Your task to perform on an android device: turn notification dots on Image 0: 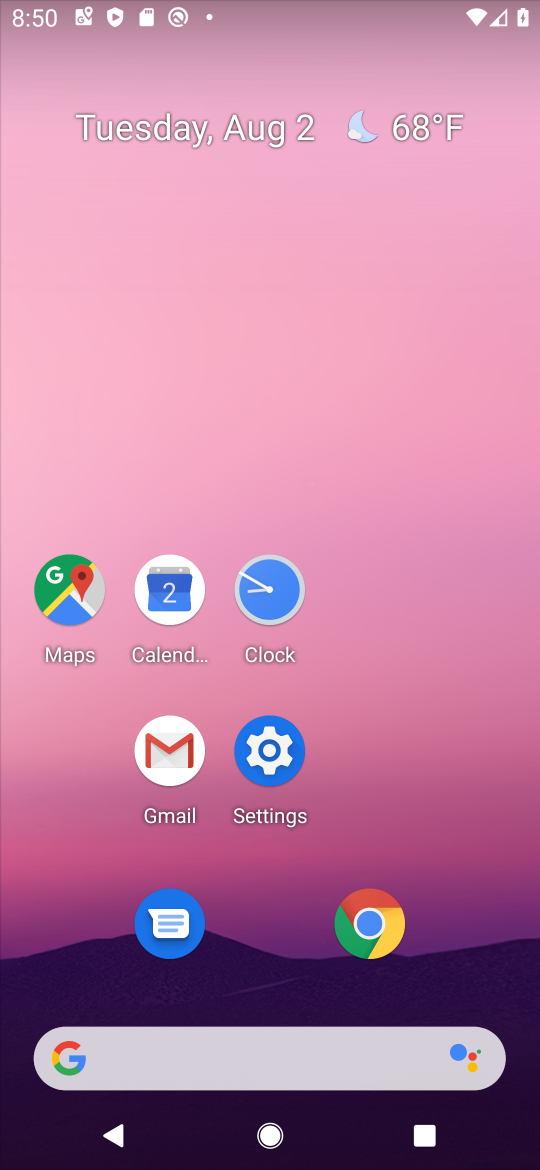
Step 0: click (267, 740)
Your task to perform on an android device: turn notification dots on Image 1: 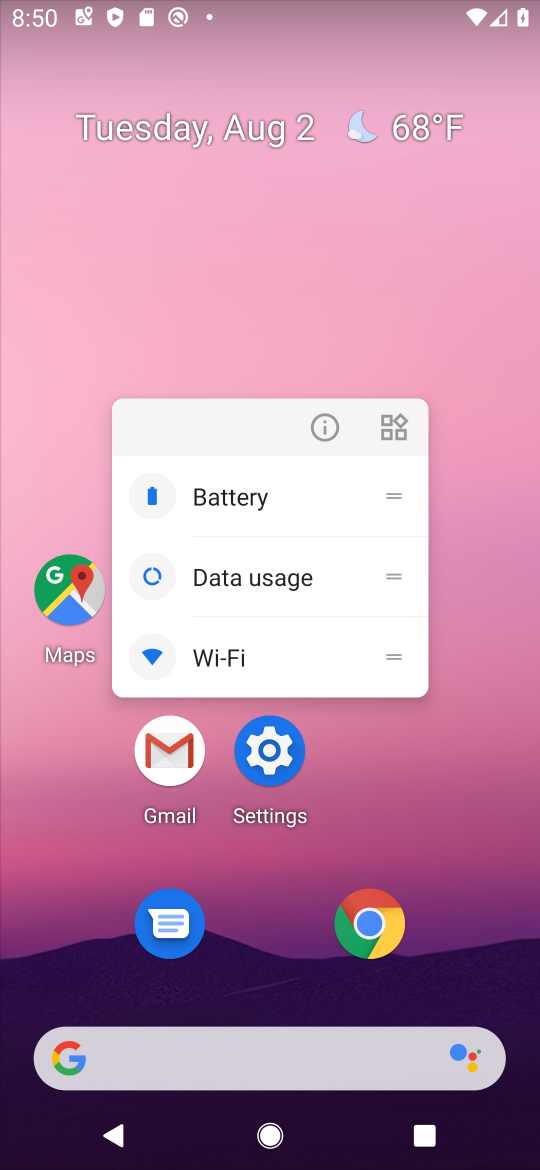
Step 1: click (266, 739)
Your task to perform on an android device: turn notification dots on Image 2: 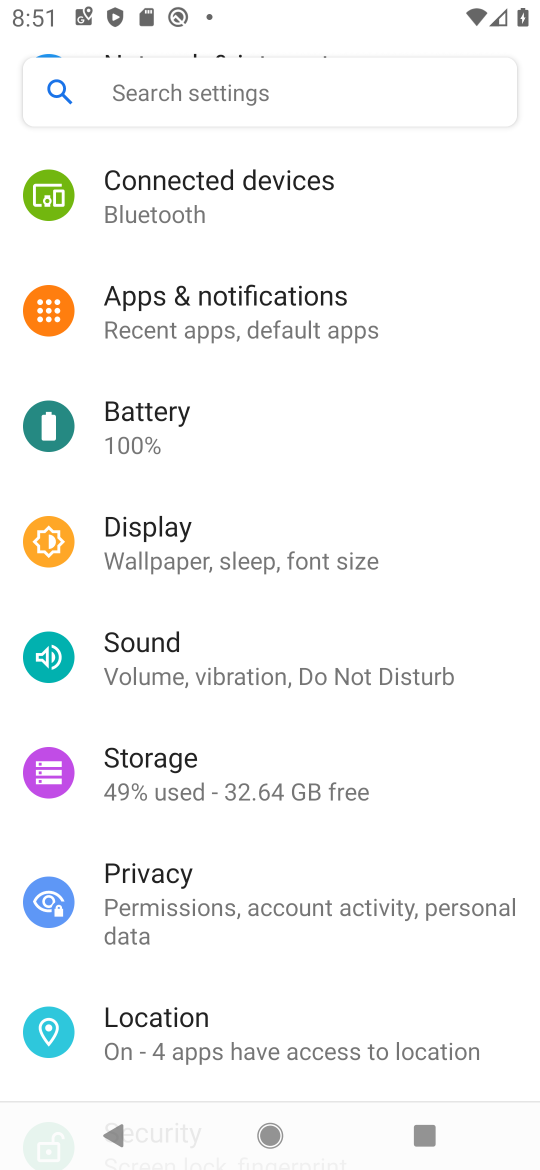
Step 2: click (264, 302)
Your task to perform on an android device: turn notification dots on Image 3: 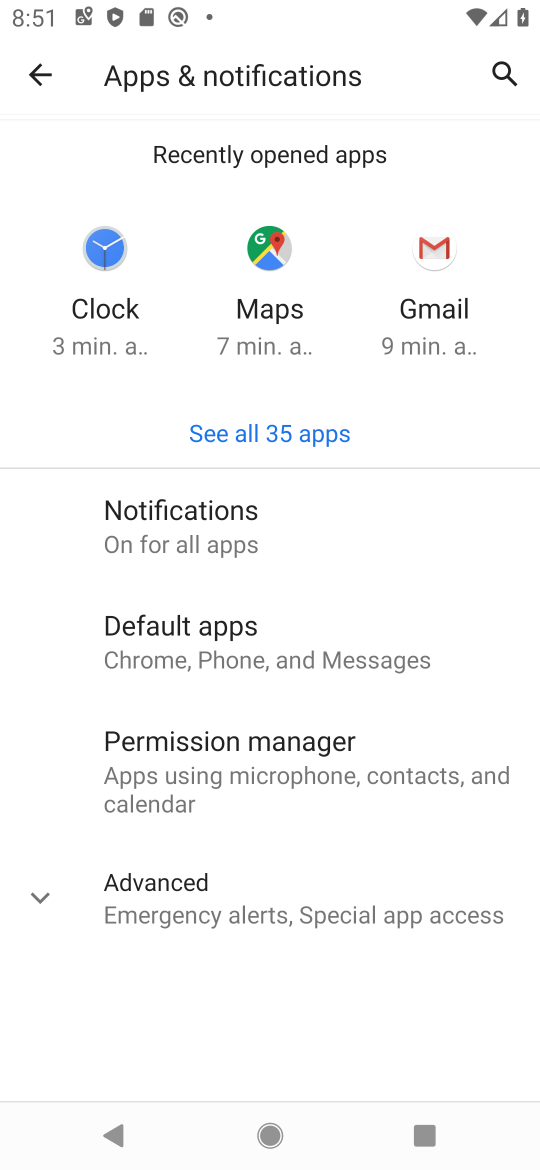
Step 3: click (203, 519)
Your task to perform on an android device: turn notification dots on Image 4: 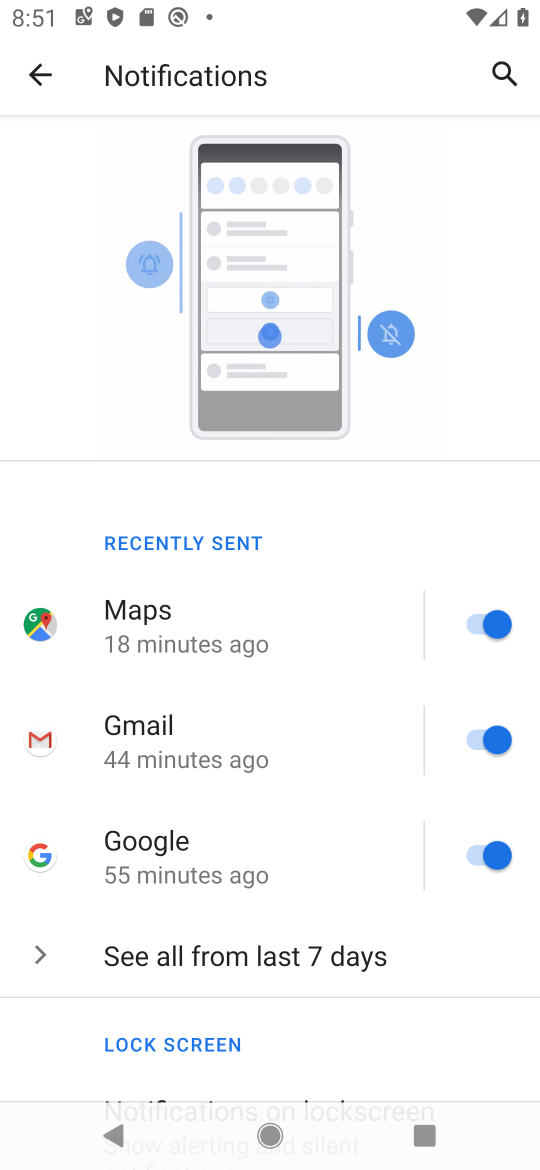
Step 4: drag from (419, 991) to (428, 569)
Your task to perform on an android device: turn notification dots on Image 5: 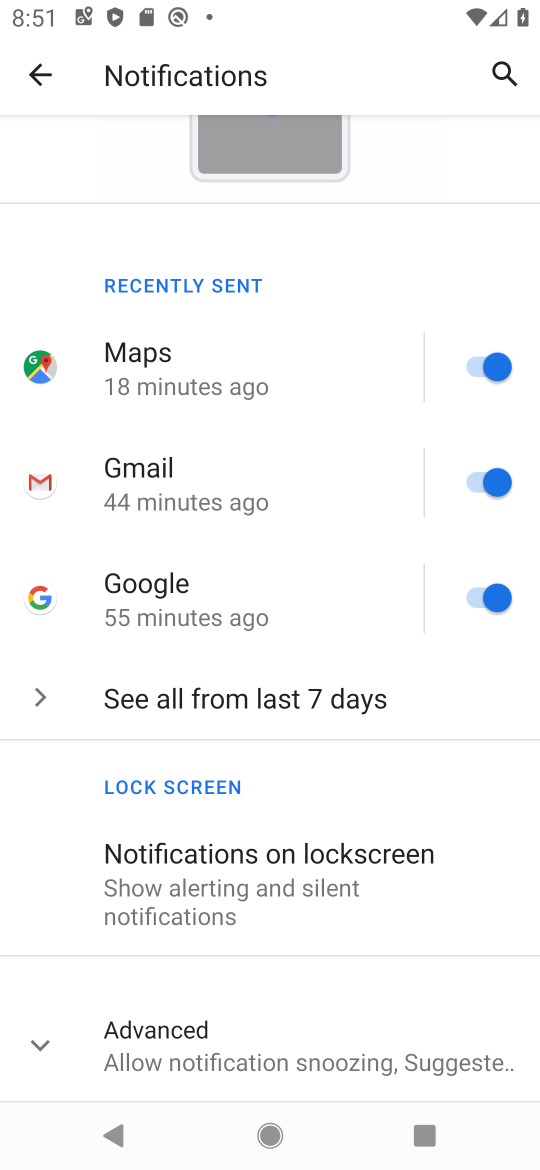
Step 5: click (28, 1035)
Your task to perform on an android device: turn notification dots on Image 6: 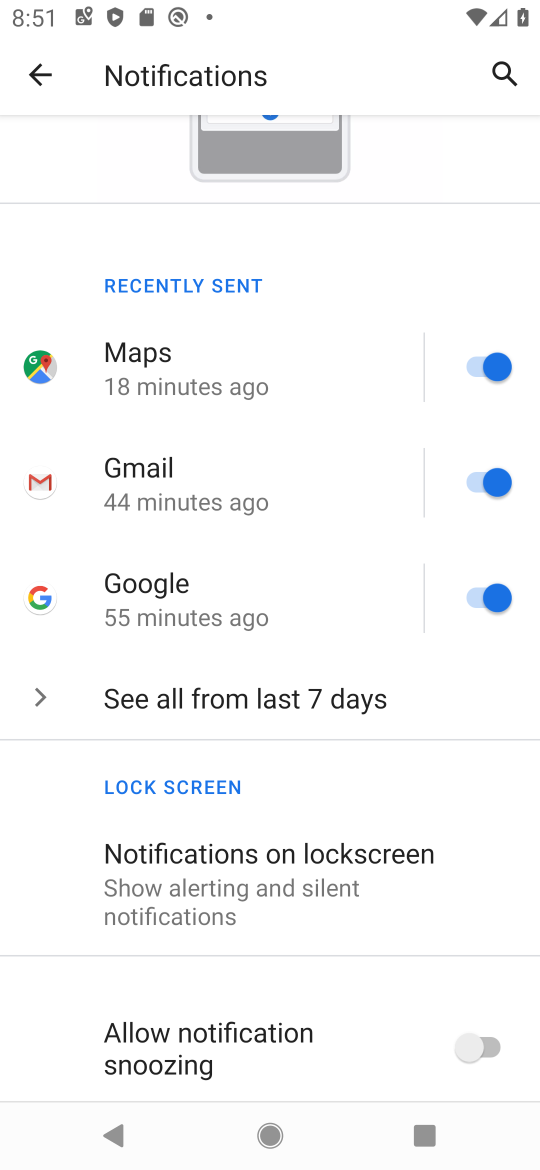
Step 6: task complete